Your task to perform on an android device: What's the weather going to be this weekend? Image 0: 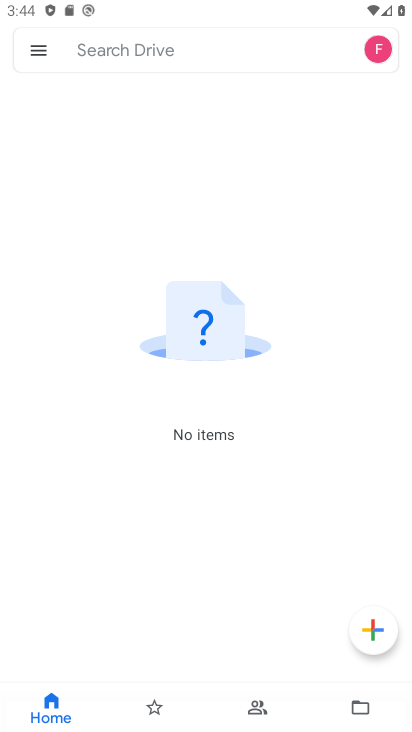
Step 0: press home button
Your task to perform on an android device: What's the weather going to be this weekend? Image 1: 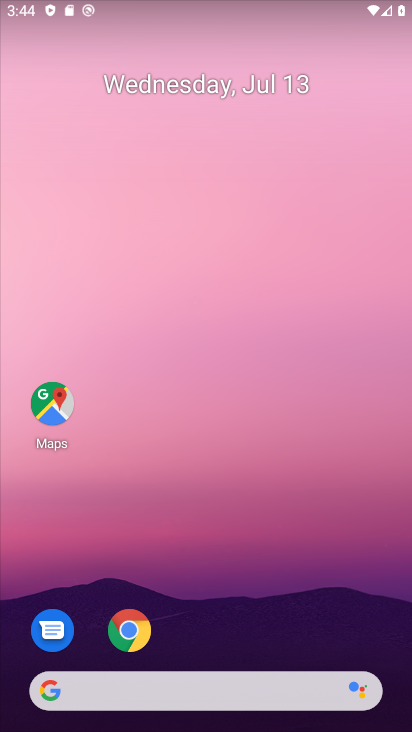
Step 1: click (42, 697)
Your task to perform on an android device: What's the weather going to be this weekend? Image 2: 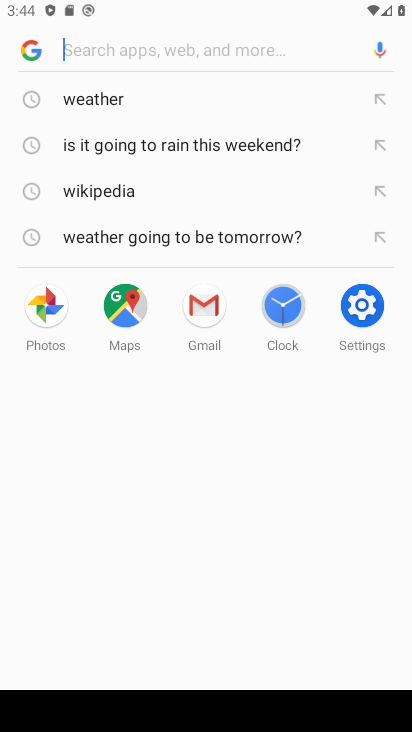
Step 2: type "weather going to be this weekend?"
Your task to perform on an android device: What's the weather going to be this weekend? Image 3: 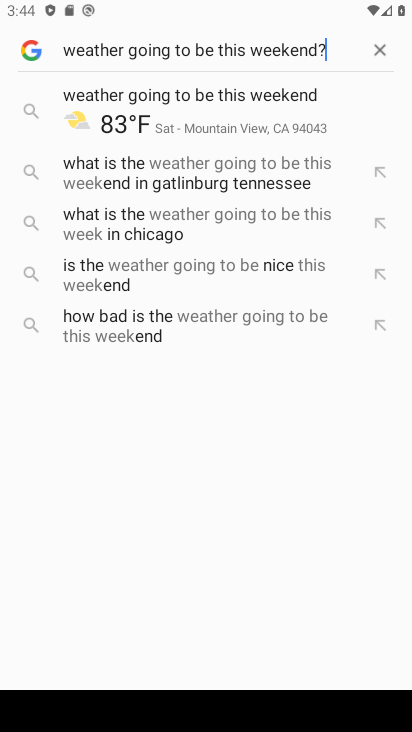
Step 3: press enter
Your task to perform on an android device: What's the weather going to be this weekend? Image 4: 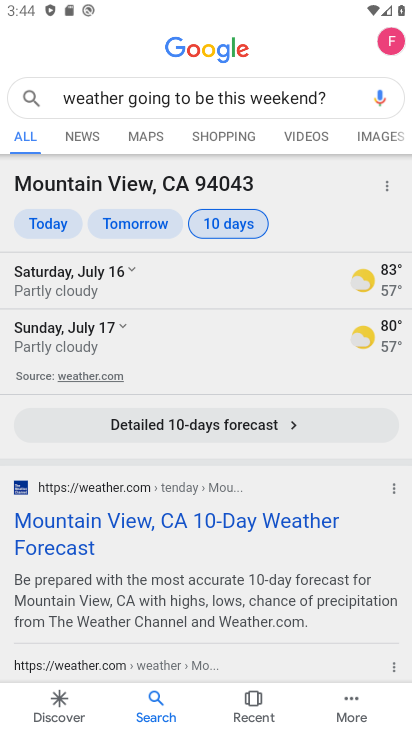
Step 4: task complete